Your task to perform on an android device: Is it going to rain today? Image 0: 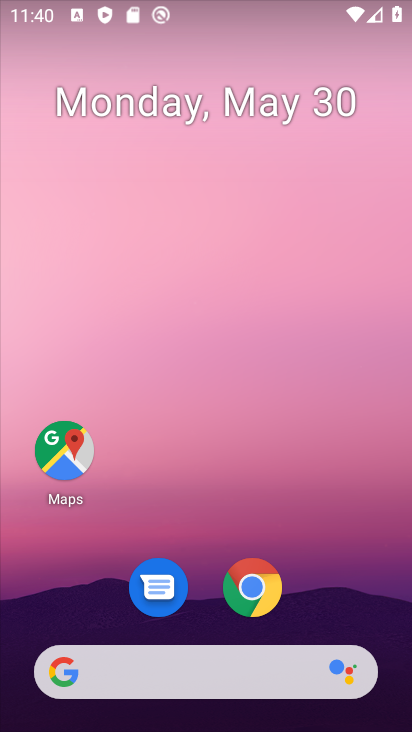
Step 0: click (171, 676)
Your task to perform on an android device: Is it going to rain today? Image 1: 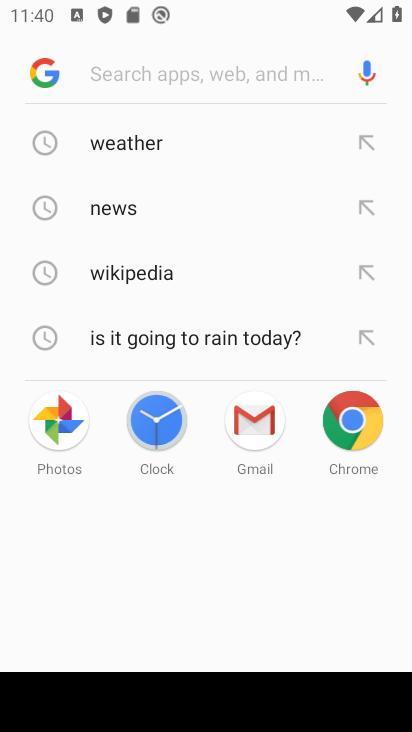
Step 1: click (258, 142)
Your task to perform on an android device: Is it going to rain today? Image 2: 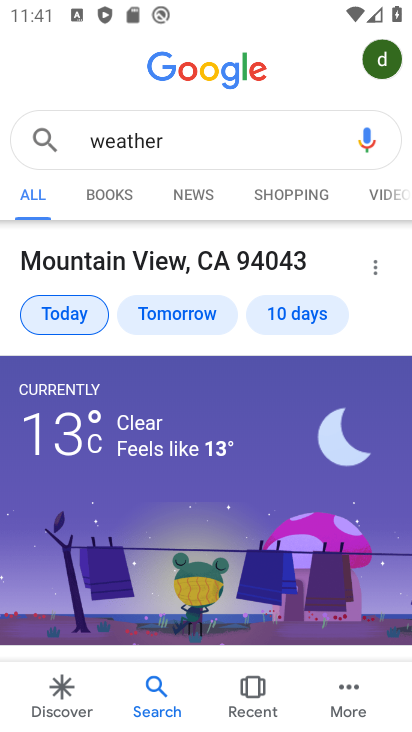
Step 2: task complete